Your task to perform on an android device: toggle translation in the chrome app Image 0: 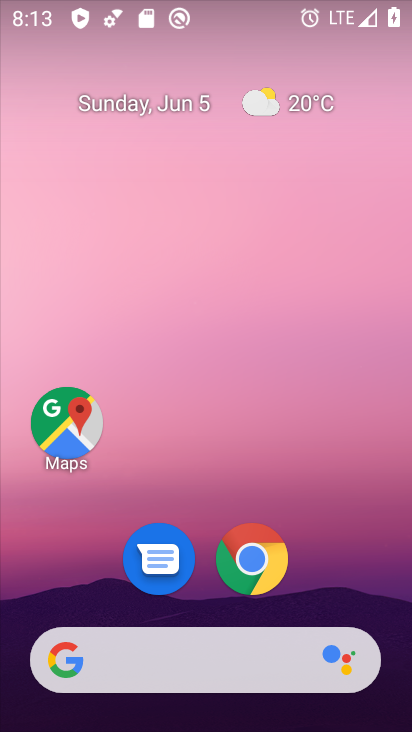
Step 0: click (260, 557)
Your task to perform on an android device: toggle translation in the chrome app Image 1: 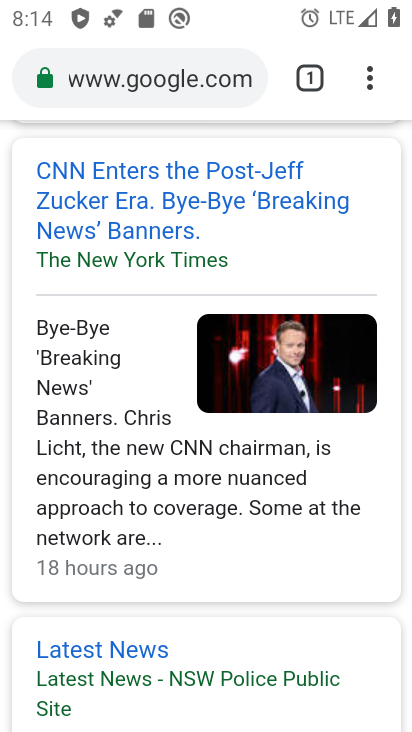
Step 1: drag from (374, 77) to (120, 673)
Your task to perform on an android device: toggle translation in the chrome app Image 2: 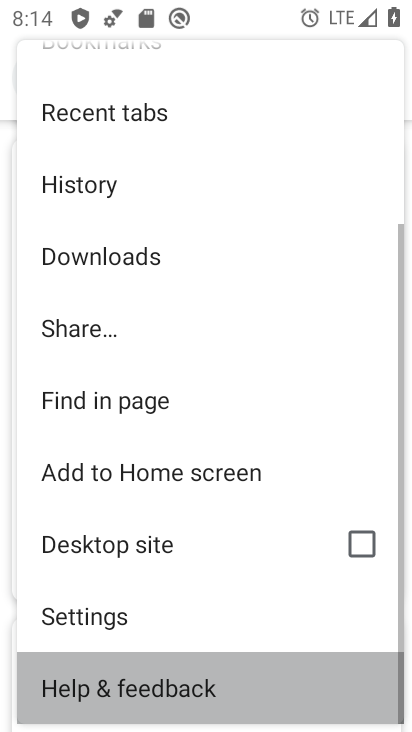
Step 2: click (113, 641)
Your task to perform on an android device: toggle translation in the chrome app Image 3: 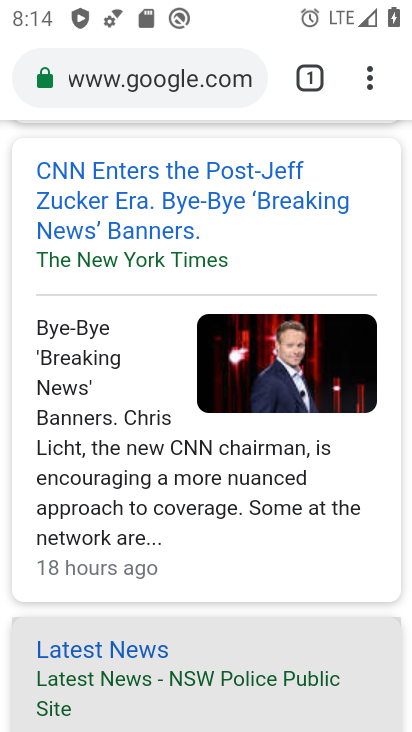
Step 3: click (108, 610)
Your task to perform on an android device: toggle translation in the chrome app Image 4: 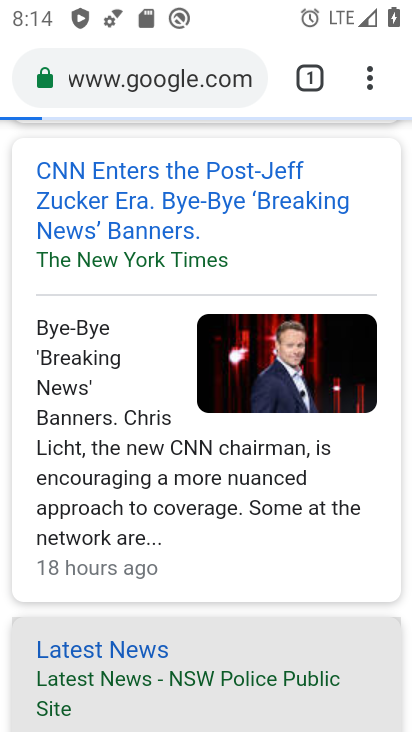
Step 4: drag from (115, 572) to (323, 101)
Your task to perform on an android device: toggle translation in the chrome app Image 5: 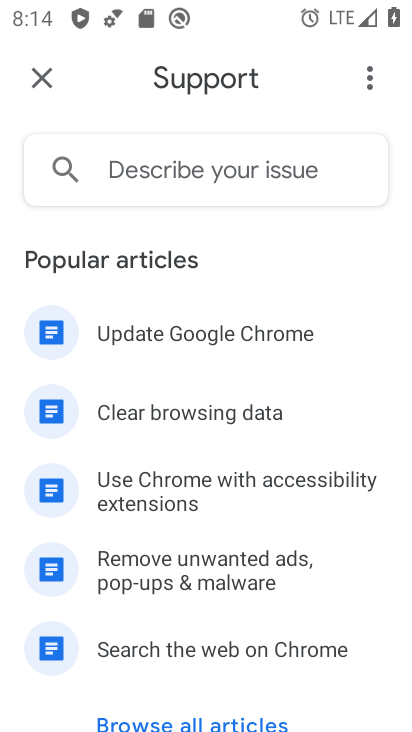
Step 5: click (39, 82)
Your task to perform on an android device: toggle translation in the chrome app Image 6: 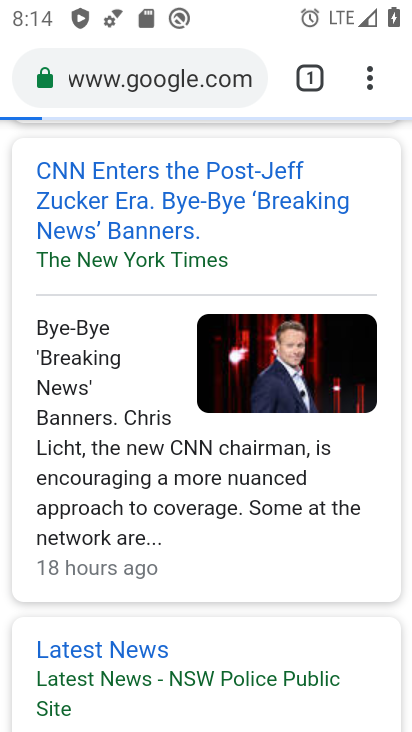
Step 6: drag from (367, 71) to (153, 626)
Your task to perform on an android device: toggle translation in the chrome app Image 7: 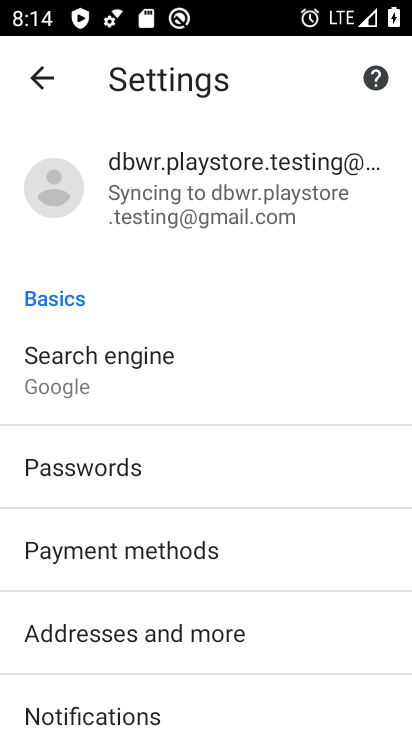
Step 7: drag from (114, 648) to (218, 284)
Your task to perform on an android device: toggle translation in the chrome app Image 8: 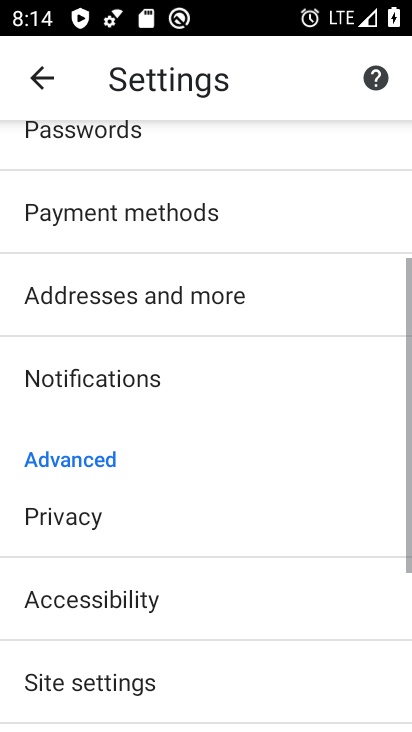
Step 8: click (238, 222)
Your task to perform on an android device: toggle translation in the chrome app Image 9: 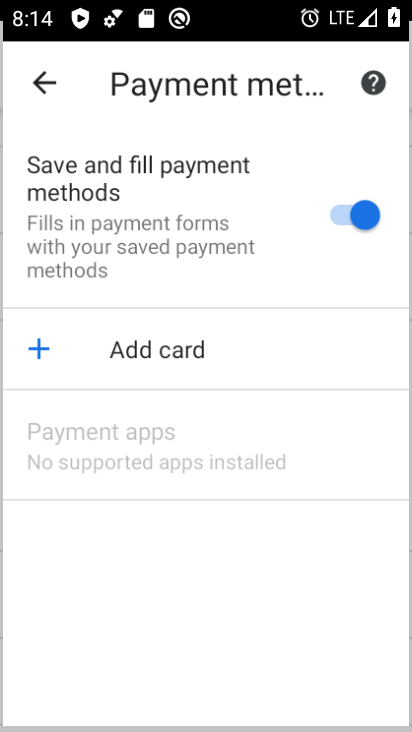
Step 9: drag from (223, 656) to (233, 324)
Your task to perform on an android device: toggle translation in the chrome app Image 10: 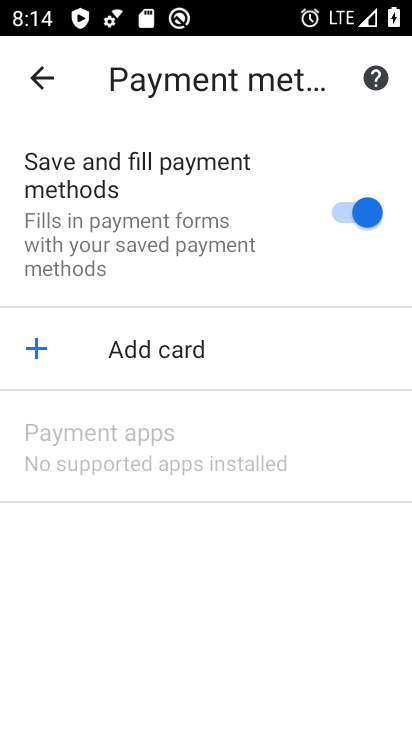
Step 10: click (34, 74)
Your task to perform on an android device: toggle translation in the chrome app Image 11: 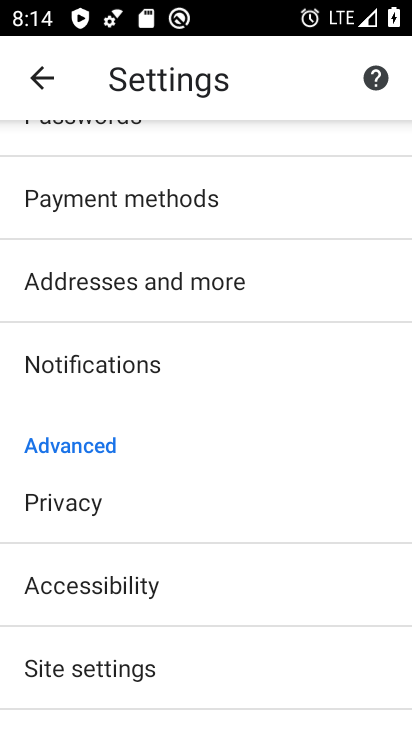
Step 11: drag from (205, 577) to (279, 68)
Your task to perform on an android device: toggle translation in the chrome app Image 12: 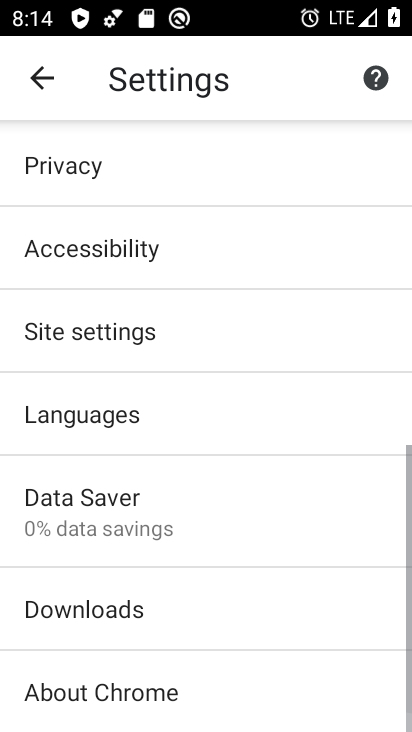
Step 12: click (279, 61)
Your task to perform on an android device: toggle translation in the chrome app Image 13: 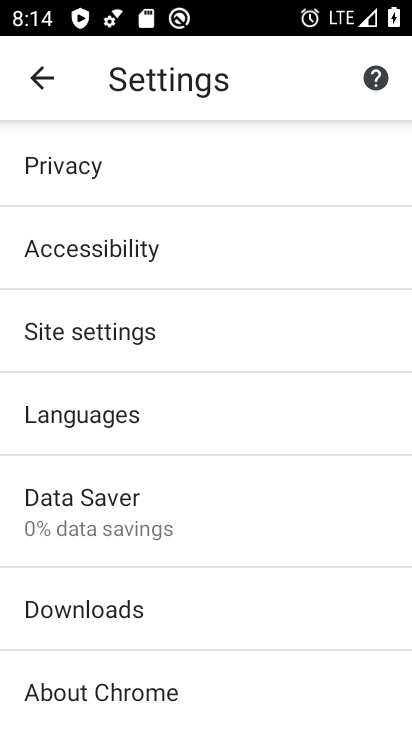
Step 13: click (113, 424)
Your task to perform on an android device: toggle translation in the chrome app Image 14: 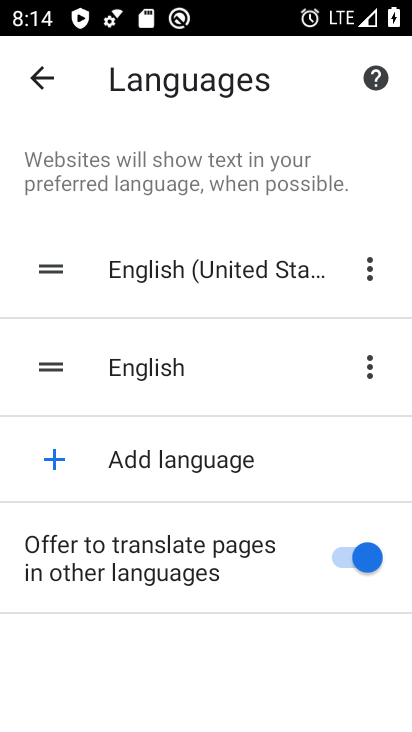
Step 14: click (366, 547)
Your task to perform on an android device: toggle translation in the chrome app Image 15: 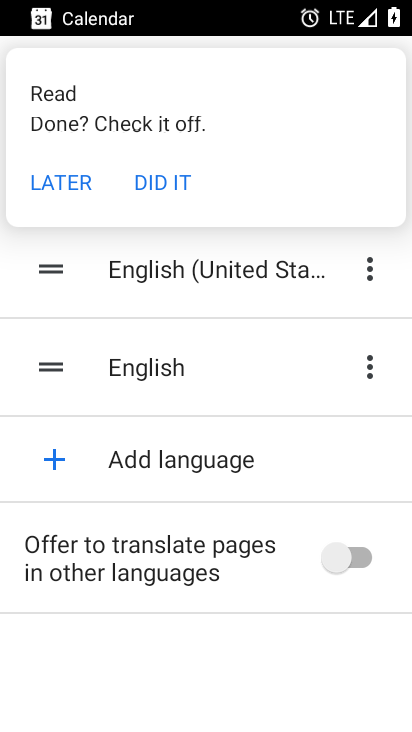
Step 15: task complete